Your task to perform on an android device: turn on airplane mode Image 0: 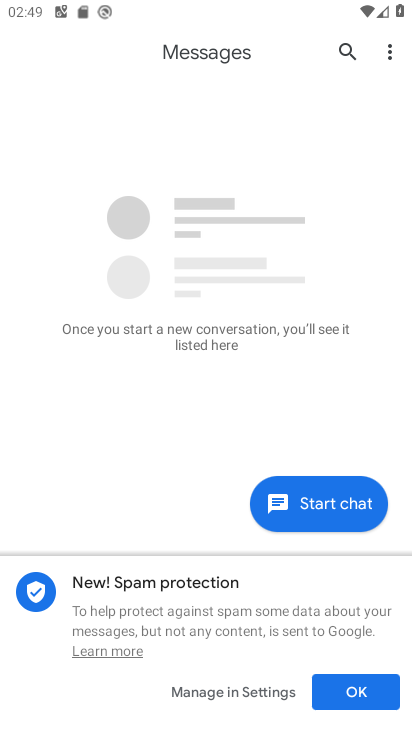
Step 0: press back button
Your task to perform on an android device: turn on airplane mode Image 1: 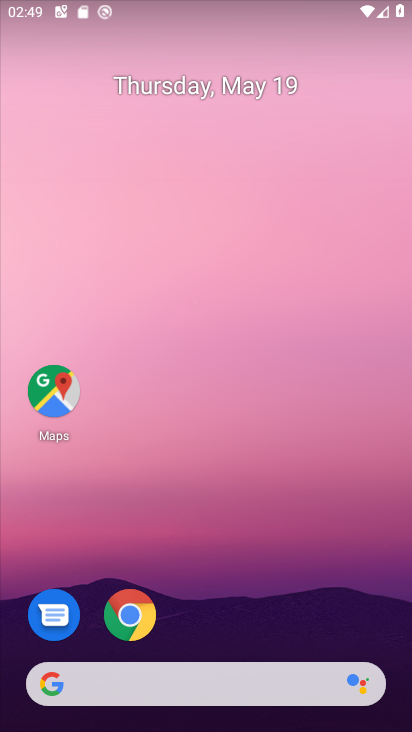
Step 1: drag from (250, 524) to (246, 103)
Your task to perform on an android device: turn on airplane mode Image 2: 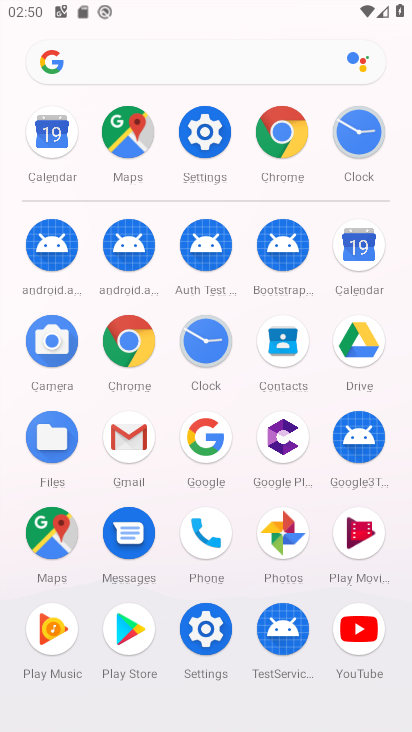
Step 2: drag from (16, 526) to (21, 271)
Your task to perform on an android device: turn on airplane mode Image 3: 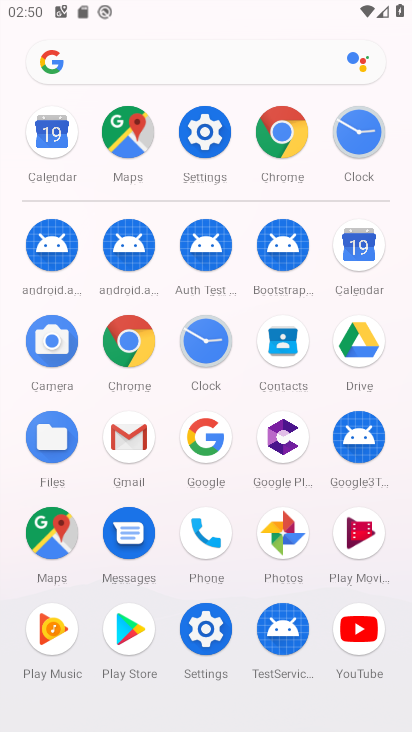
Step 3: click (206, 621)
Your task to perform on an android device: turn on airplane mode Image 4: 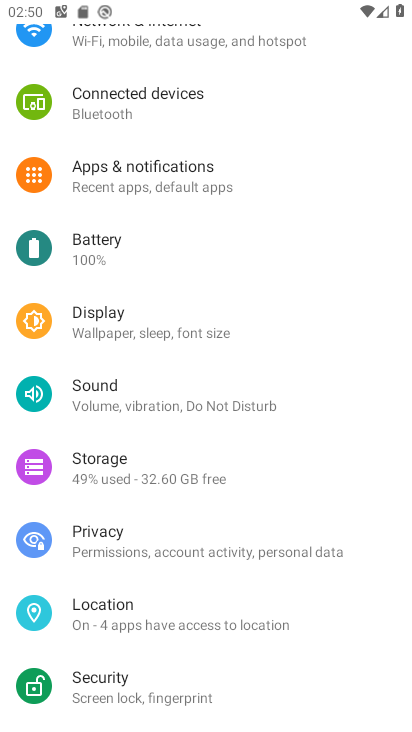
Step 4: drag from (187, 113) to (190, 494)
Your task to perform on an android device: turn on airplane mode Image 5: 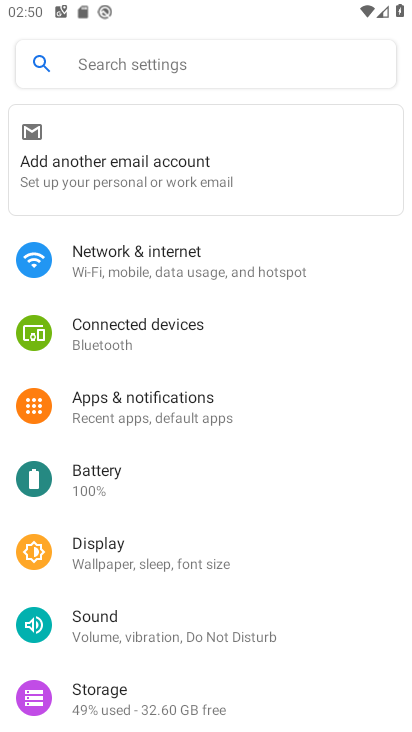
Step 5: click (194, 257)
Your task to perform on an android device: turn on airplane mode Image 6: 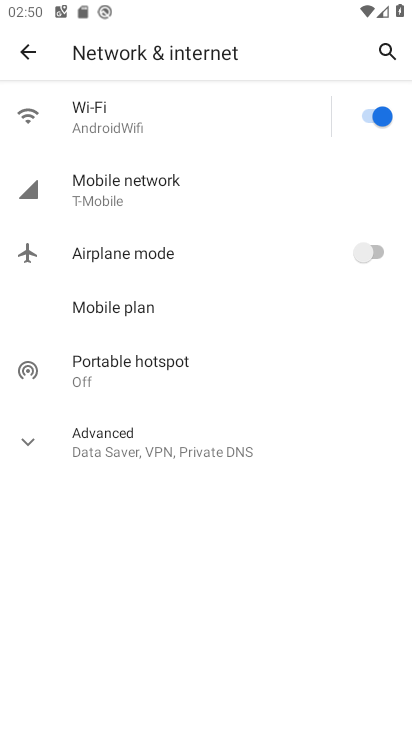
Step 6: click (387, 251)
Your task to perform on an android device: turn on airplane mode Image 7: 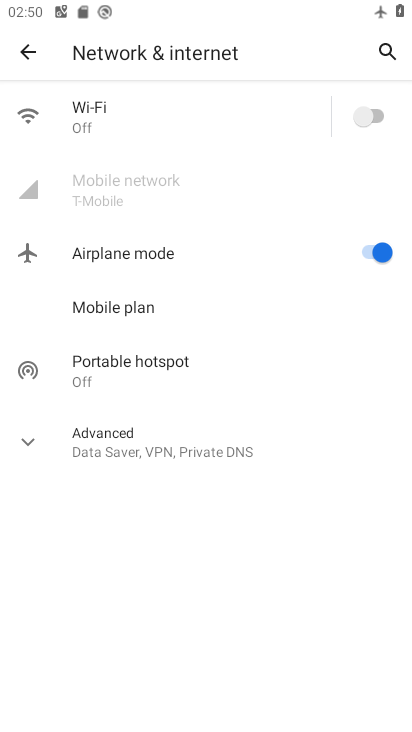
Step 7: click (18, 439)
Your task to perform on an android device: turn on airplane mode Image 8: 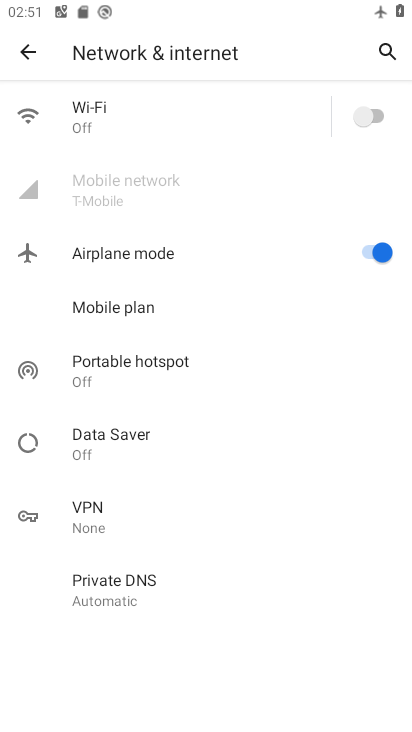
Step 8: task complete